Your task to perform on an android device: turn pop-ups off in chrome Image 0: 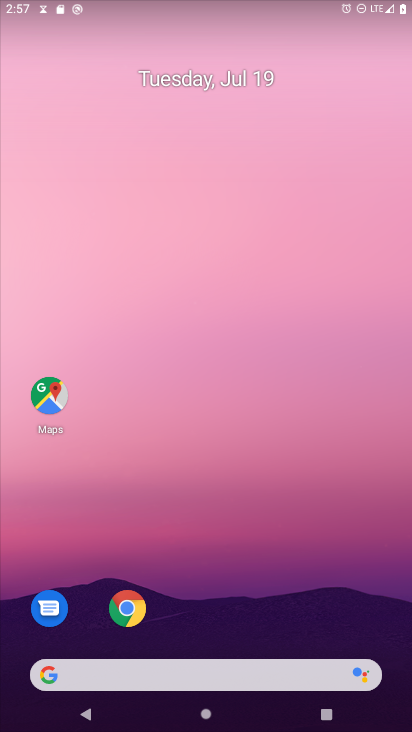
Step 0: drag from (312, 665) to (340, 9)
Your task to perform on an android device: turn pop-ups off in chrome Image 1: 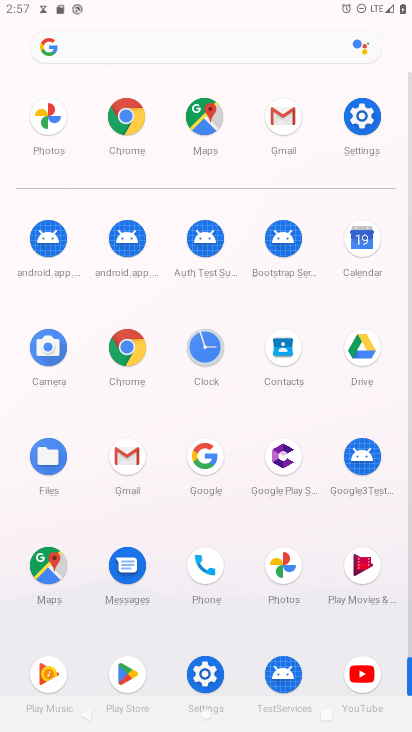
Step 1: click (117, 347)
Your task to perform on an android device: turn pop-ups off in chrome Image 2: 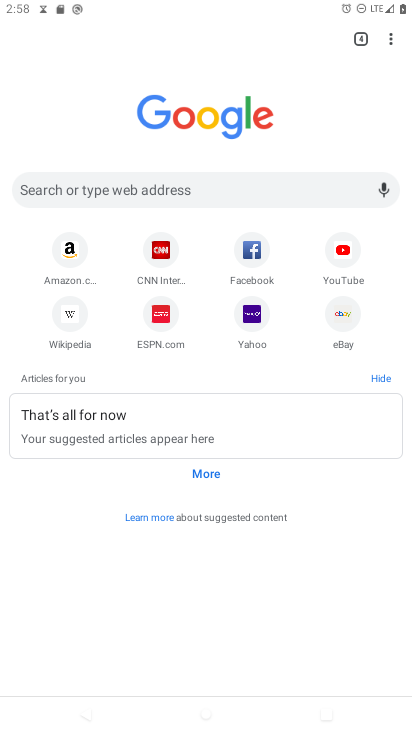
Step 2: press home button
Your task to perform on an android device: turn pop-ups off in chrome Image 3: 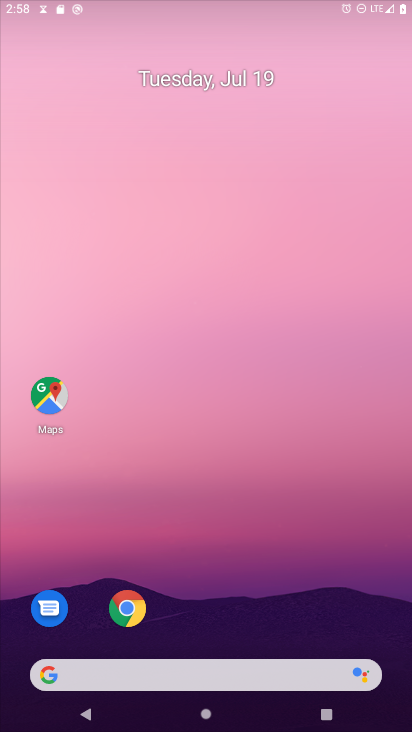
Step 3: drag from (262, 703) to (308, 142)
Your task to perform on an android device: turn pop-ups off in chrome Image 4: 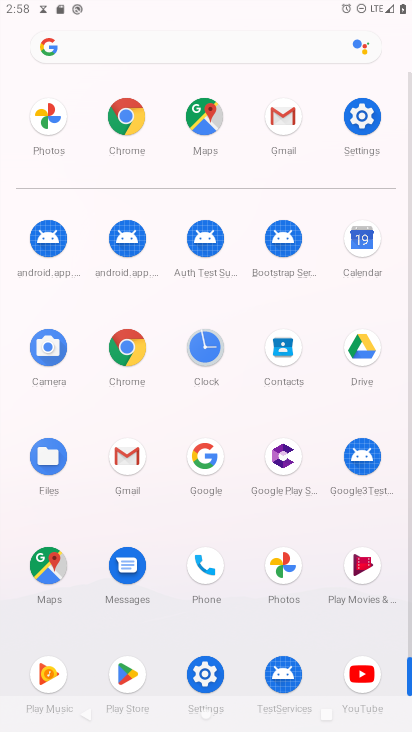
Step 4: click (138, 353)
Your task to perform on an android device: turn pop-ups off in chrome Image 5: 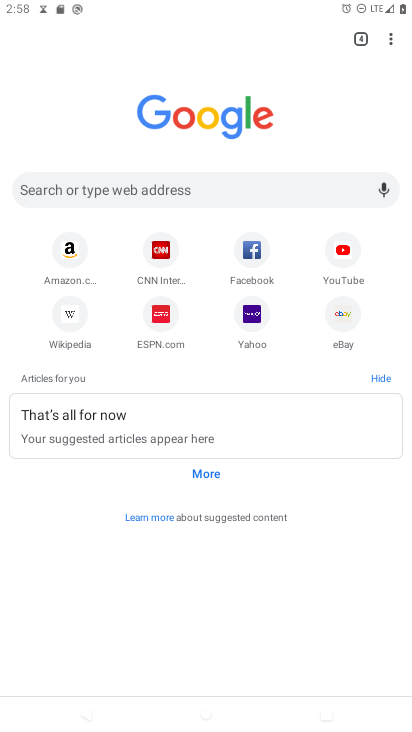
Step 5: drag from (391, 35) to (286, 328)
Your task to perform on an android device: turn pop-ups off in chrome Image 6: 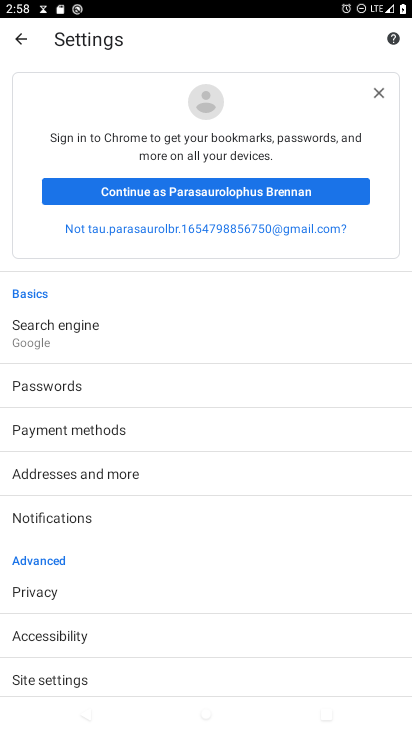
Step 6: drag from (92, 630) to (110, 469)
Your task to perform on an android device: turn pop-ups off in chrome Image 7: 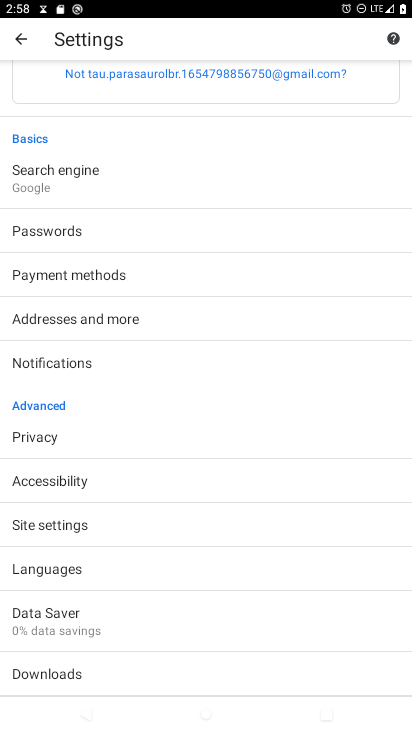
Step 7: click (88, 532)
Your task to perform on an android device: turn pop-ups off in chrome Image 8: 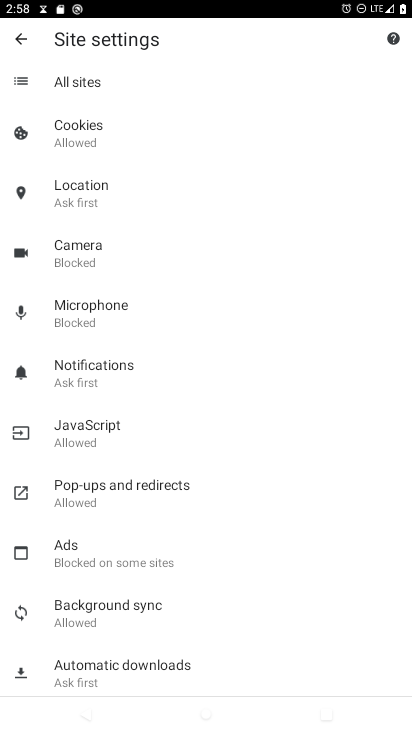
Step 8: click (118, 492)
Your task to perform on an android device: turn pop-ups off in chrome Image 9: 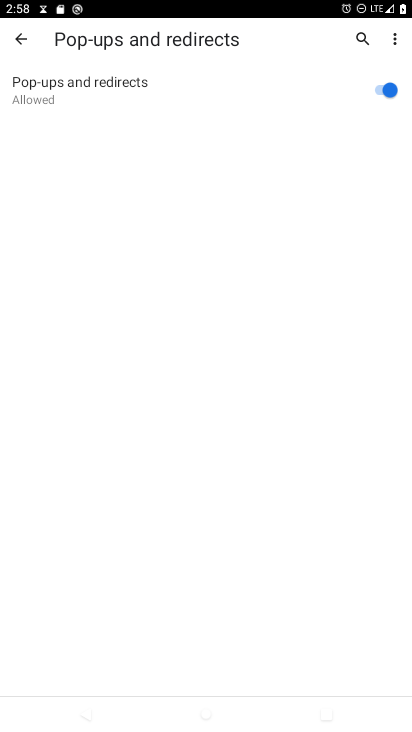
Step 9: click (371, 88)
Your task to perform on an android device: turn pop-ups off in chrome Image 10: 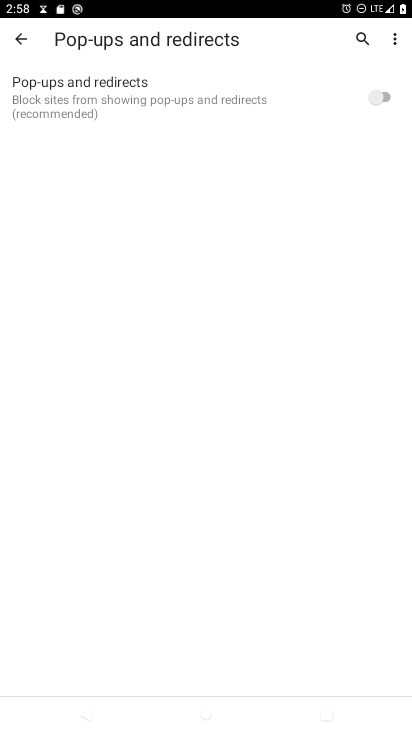
Step 10: task complete